Your task to perform on an android device: turn pop-ups on in chrome Image 0: 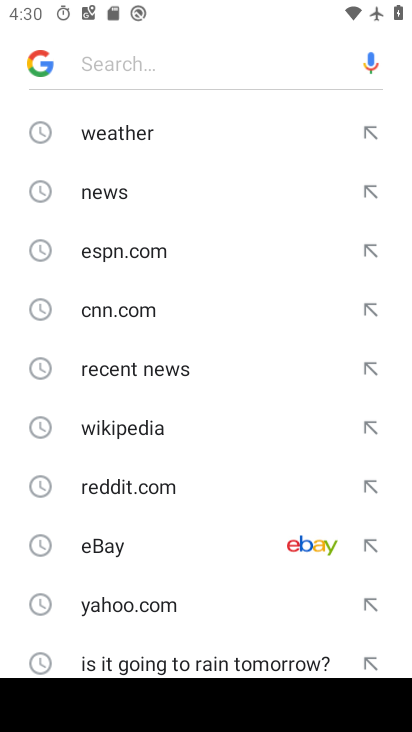
Step 0: press back button
Your task to perform on an android device: turn pop-ups on in chrome Image 1: 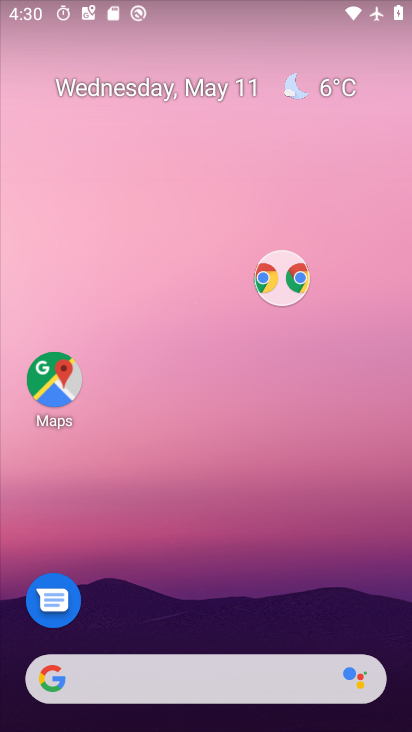
Step 1: press home button
Your task to perform on an android device: turn pop-ups on in chrome Image 2: 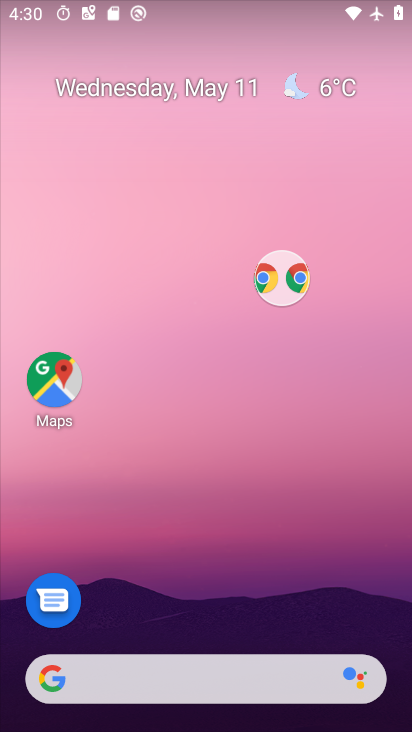
Step 2: drag from (320, 610) to (139, 66)
Your task to perform on an android device: turn pop-ups on in chrome Image 3: 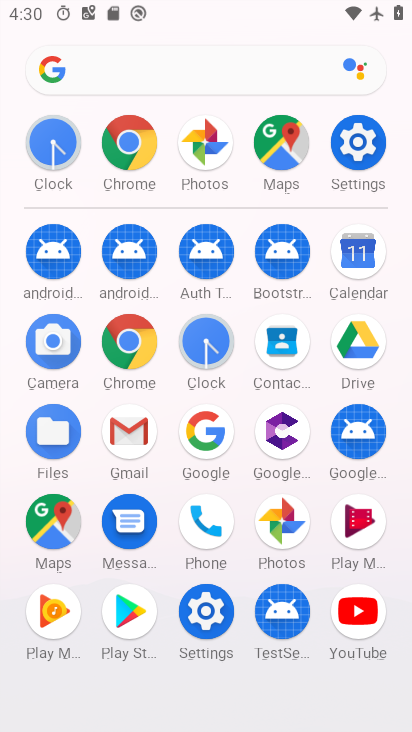
Step 3: click (123, 150)
Your task to perform on an android device: turn pop-ups on in chrome Image 4: 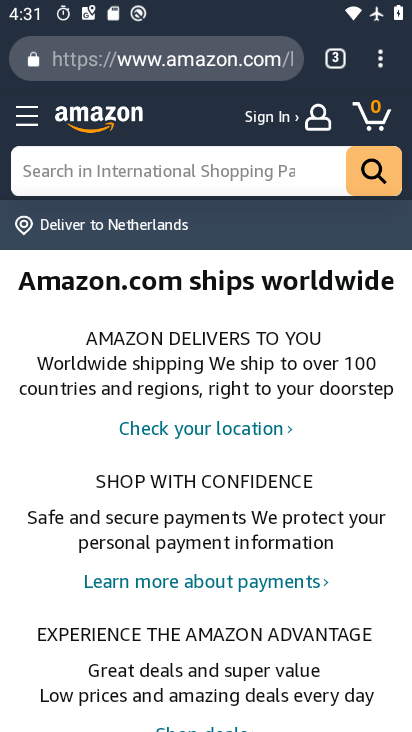
Step 4: click (383, 58)
Your task to perform on an android device: turn pop-ups on in chrome Image 5: 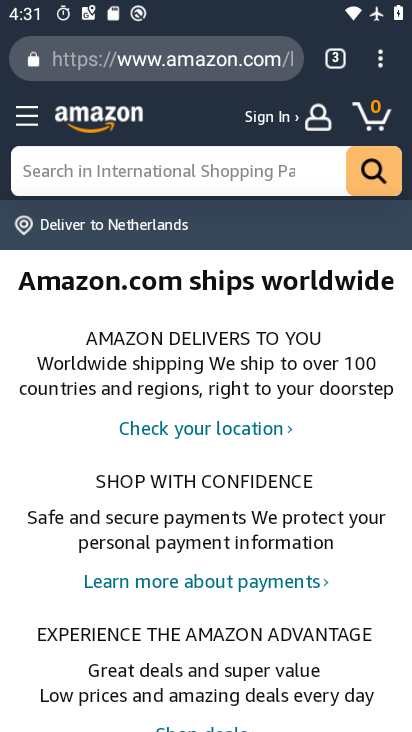
Step 5: click (381, 67)
Your task to perform on an android device: turn pop-ups on in chrome Image 6: 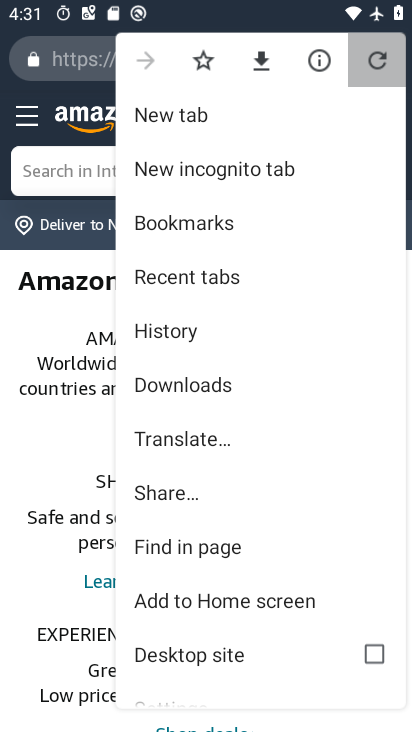
Step 6: drag from (381, 83) to (174, 626)
Your task to perform on an android device: turn pop-ups on in chrome Image 7: 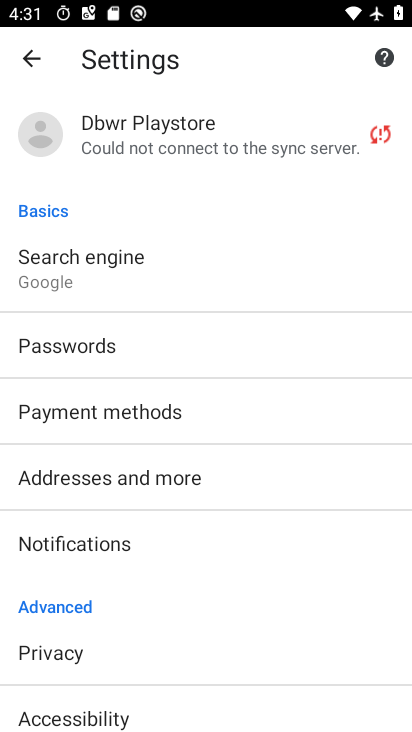
Step 7: drag from (145, 486) to (140, 145)
Your task to perform on an android device: turn pop-ups on in chrome Image 8: 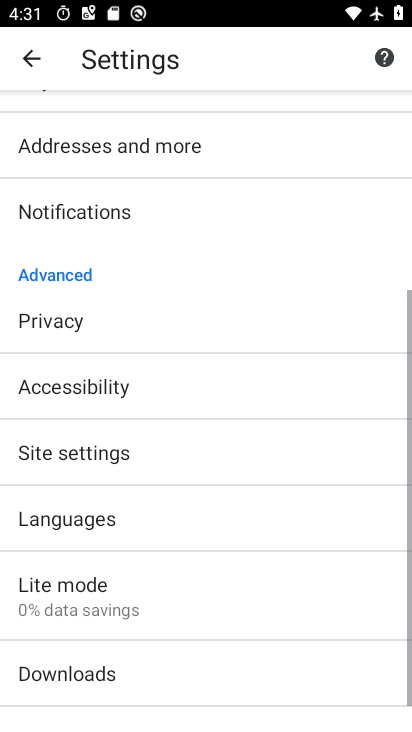
Step 8: drag from (215, 487) to (171, 164)
Your task to perform on an android device: turn pop-ups on in chrome Image 9: 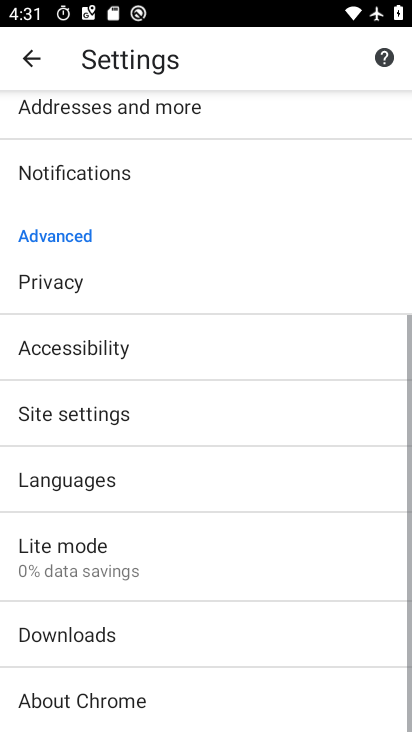
Step 9: drag from (156, 514) to (119, 199)
Your task to perform on an android device: turn pop-ups on in chrome Image 10: 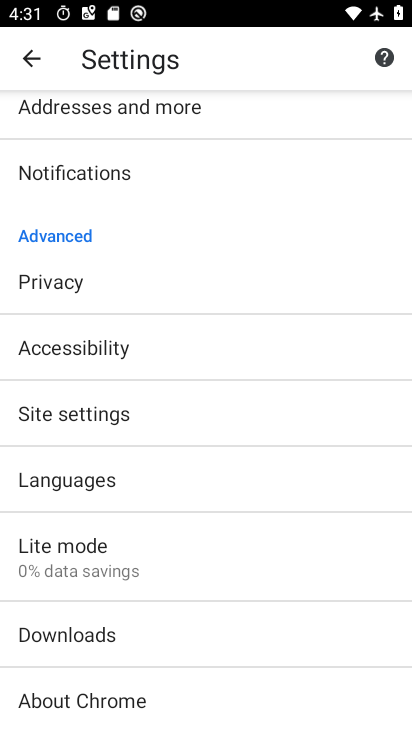
Step 10: click (63, 419)
Your task to perform on an android device: turn pop-ups on in chrome Image 11: 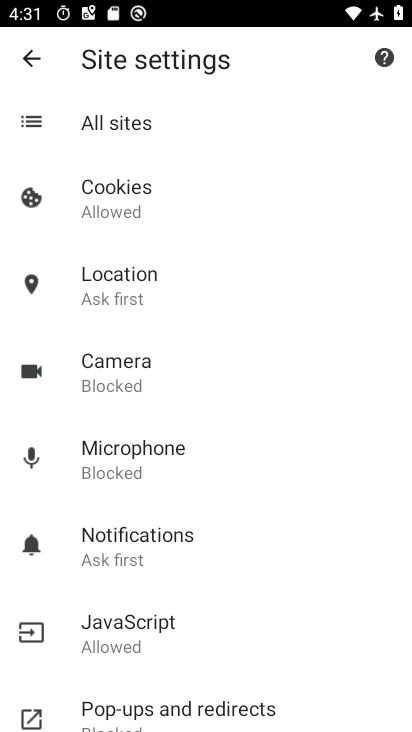
Step 11: drag from (147, 636) to (81, 221)
Your task to perform on an android device: turn pop-ups on in chrome Image 12: 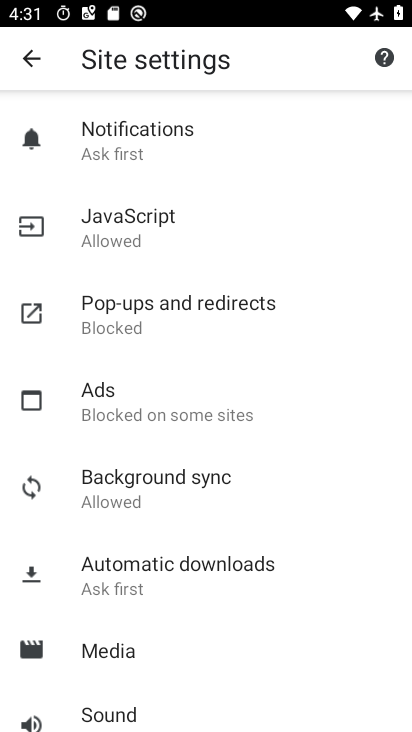
Step 12: click (139, 316)
Your task to perform on an android device: turn pop-ups on in chrome Image 13: 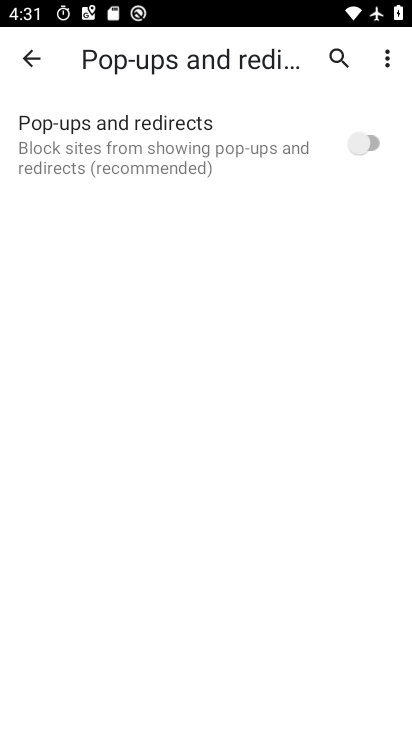
Step 13: click (355, 139)
Your task to perform on an android device: turn pop-ups on in chrome Image 14: 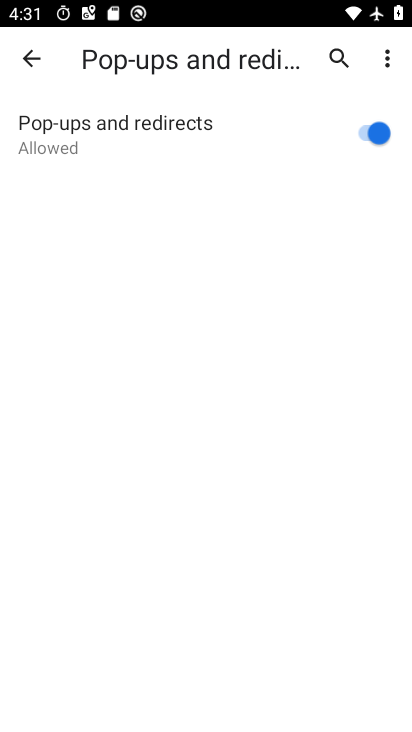
Step 14: task complete